Your task to perform on an android device: Search for Mexican restaurants on Maps Image 0: 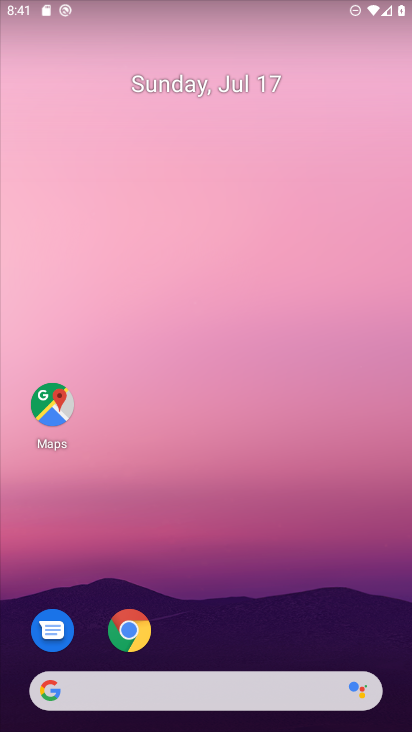
Step 0: drag from (387, 627) to (194, 65)
Your task to perform on an android device: Search for Mexican restaurants on Maps Image 1: 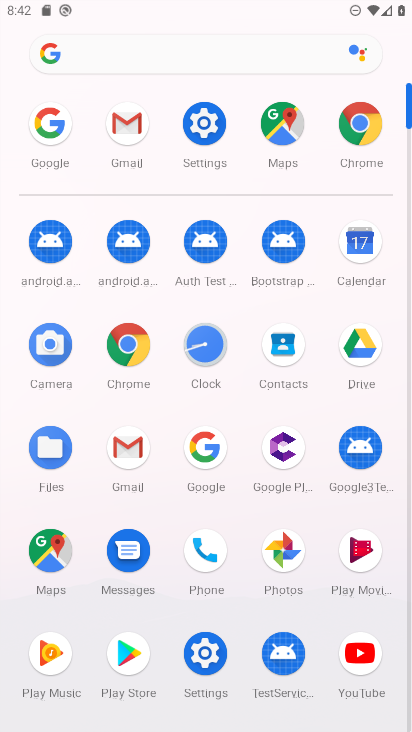
Step 1: click (57, 564)
Your task to perform on an android device: Search for Mexican restaurants on Maps Image 2: 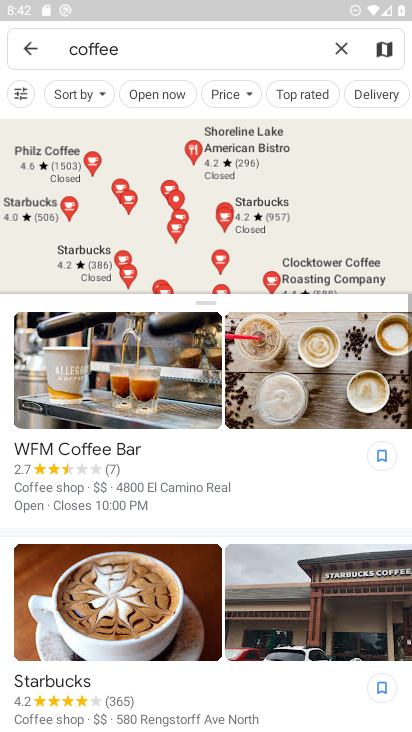
Step 2: click (339, 51)
Your task to perform on an android device: Search for Mexican restaurants on Maps Image 3: 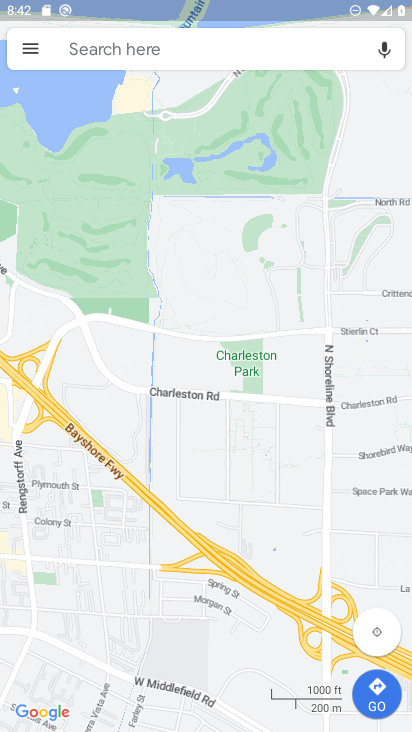
Step 3: click (98, 52)
Your task to perform on an android device: Search for Mexican restaurants on Maps Image 4: 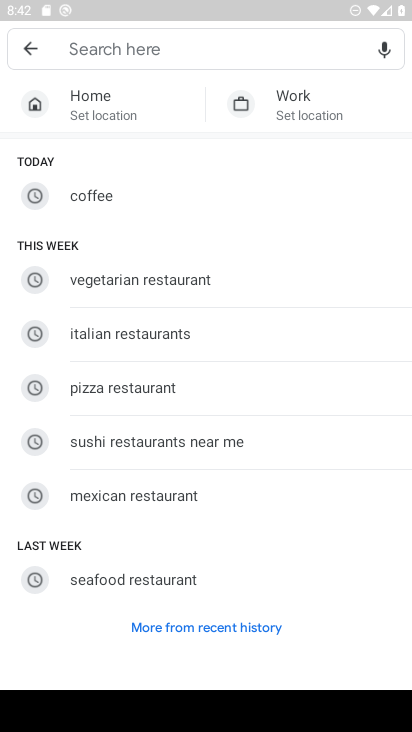
Step 4: click (124, 506)
Your task to perform on an android device: Search for Mexican restaurants on Maps Image 5: 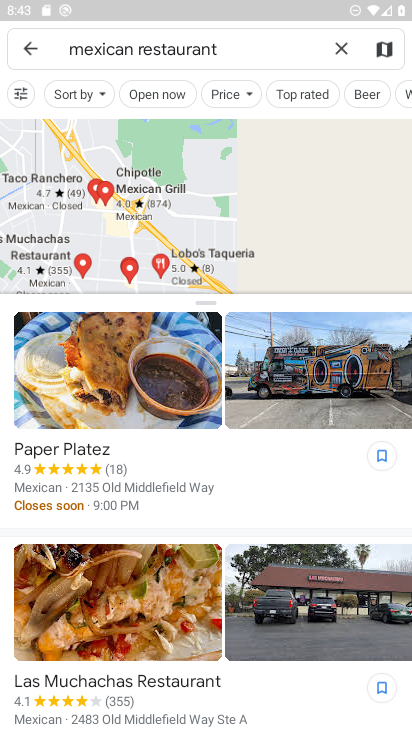
Step 5: task complete